Your task to perform on an android device: Go to display settings Image 0: 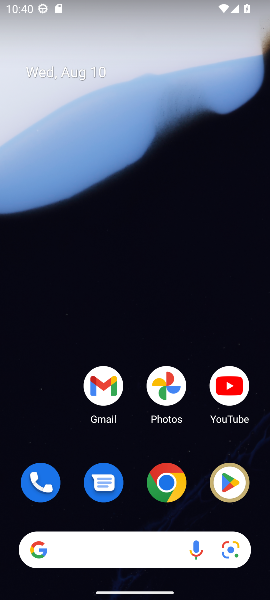
Step 0: drag from (162, 353) to (192, 86)
Your task to perform on an android device: Go to display settings Image 1: 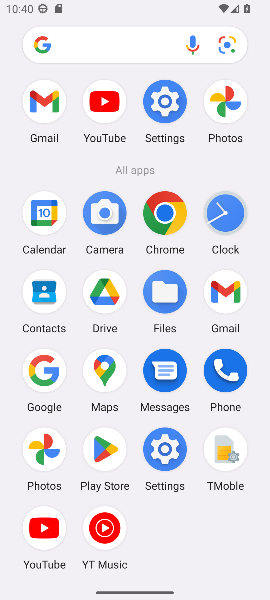
Step 1: click (170, 104)
Your task to perform on an android device: Go to display settings Image 2: 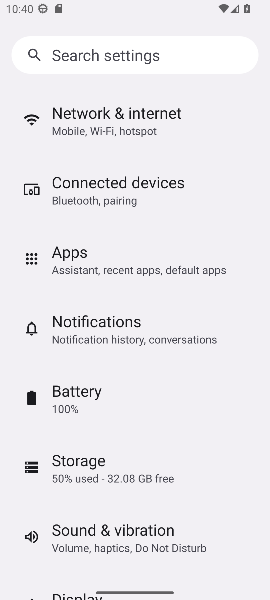
Step 2: drag from (152, 206) to (159, 492)
Your task to perform on an android device: Go to display settings Image 3: 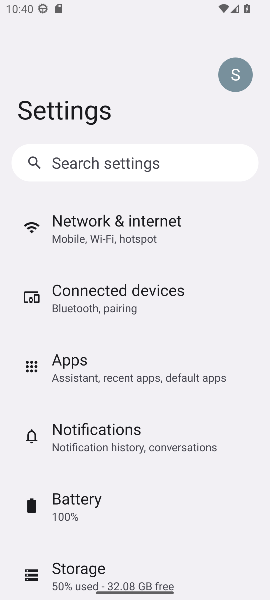
Step 3: drag from (138, 466) to (155, 189)
Your task to perform on an android device: Go to display settings Image 4: 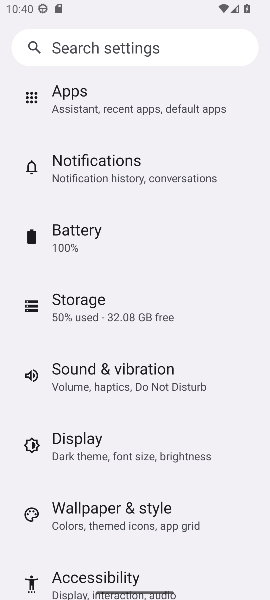
Step 4: click (110, 444)
Your task to perform on an android device: Go to display settings Image 5: 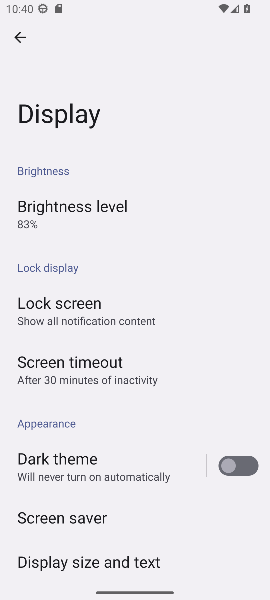
Step 5: task complete